Your task to perform on an android device: Open Yahoo.com Image 0: 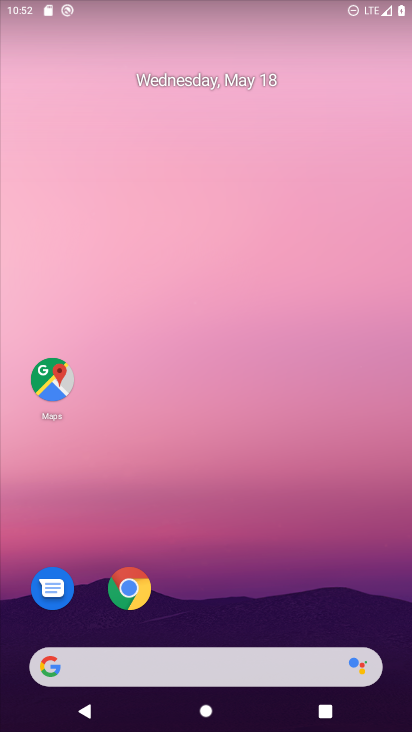
Step 0: click (127, 593)
Your task to perform on an android device: Open Yahoo.com Image 1: 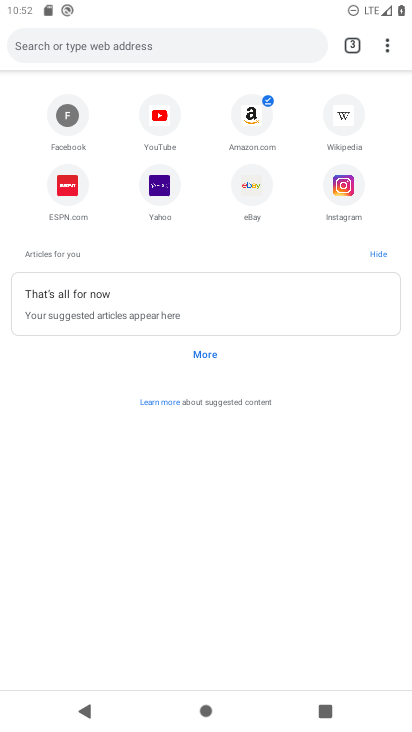
Step 1: click (152, 193)
Your task to perform on an android device: Open Yahoo.com Image 2: 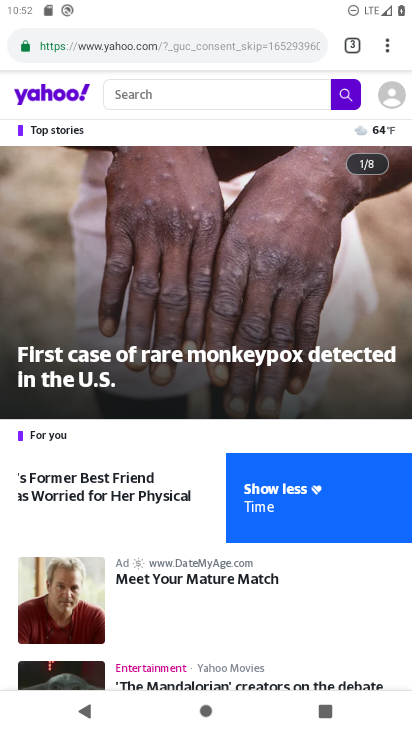
Step 2: task complete